Your task to perform on an android device: Open Wikipedia Image 0: 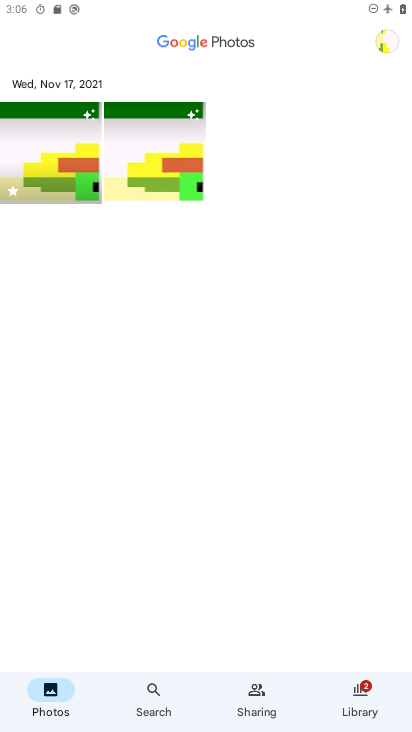
Step 0: press home button
Your task to perform on an android device: Open Wikipedia Image 1: 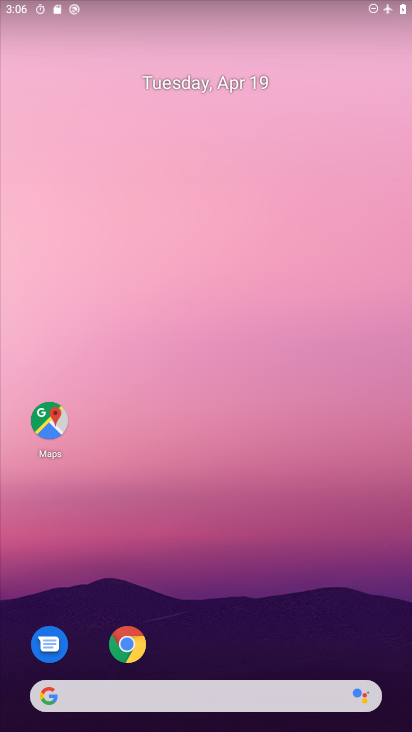
Step 1: click (121, 642)
Your task to perform on an android device: Open Wikipedia Image 2: 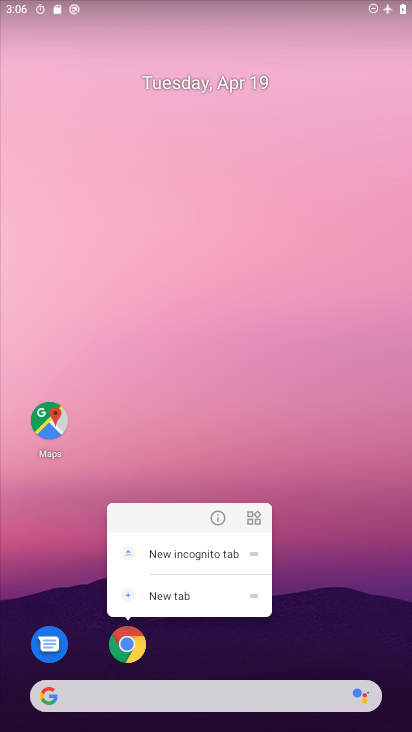
Step 2: click (127, 641)
Your task to perform on an android device: Open Wikipedia Image 3: 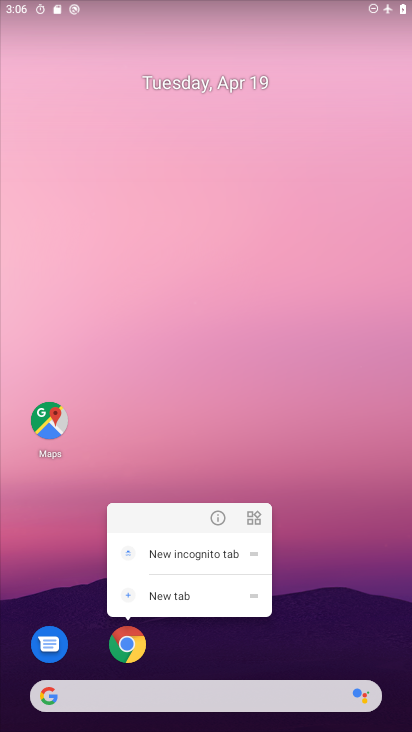
Step 3: click (162, 596)
Your task to perform on an android device: Open Wikipedia Image 4: 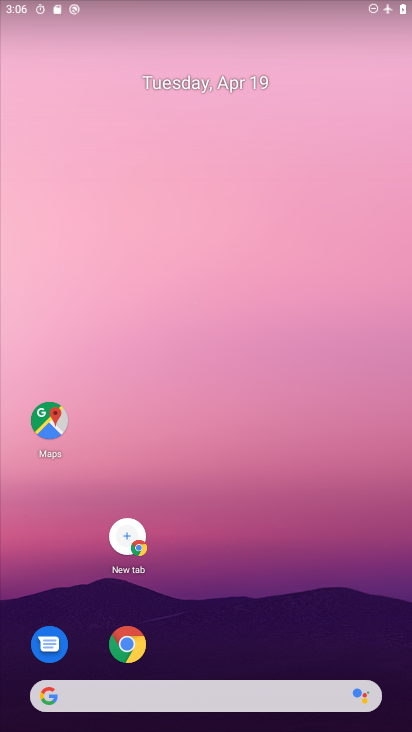
Step 4: click (127, 539)
Your task to perform on an android device: Open Wikipedia Image 5: 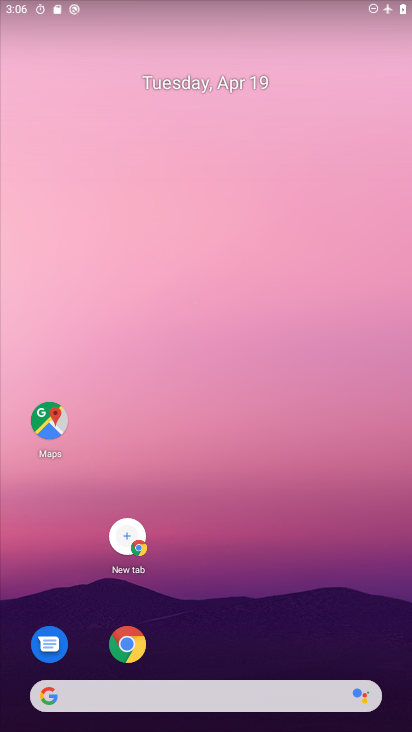
Step 5: click (124, 531)
Your task to perform on an android device: Open Wikipedia Image 6: 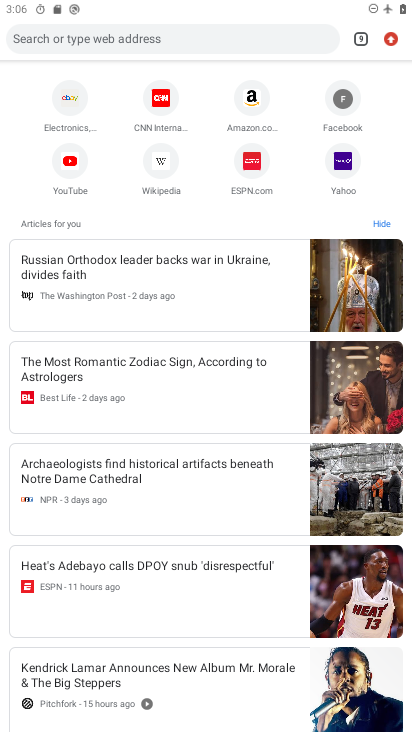
Step 6: click (156, 162)
Your task to perform on an android device: Open Wikipedia Image 7: 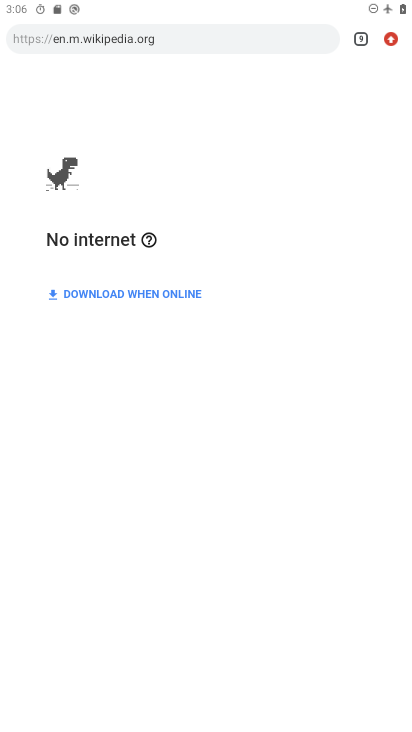
Step 7: task complete